Your task to perform on an android device: Clear the shopping cart on target.com. Add "razer blackwidow" to the cart on target.com Image 0: 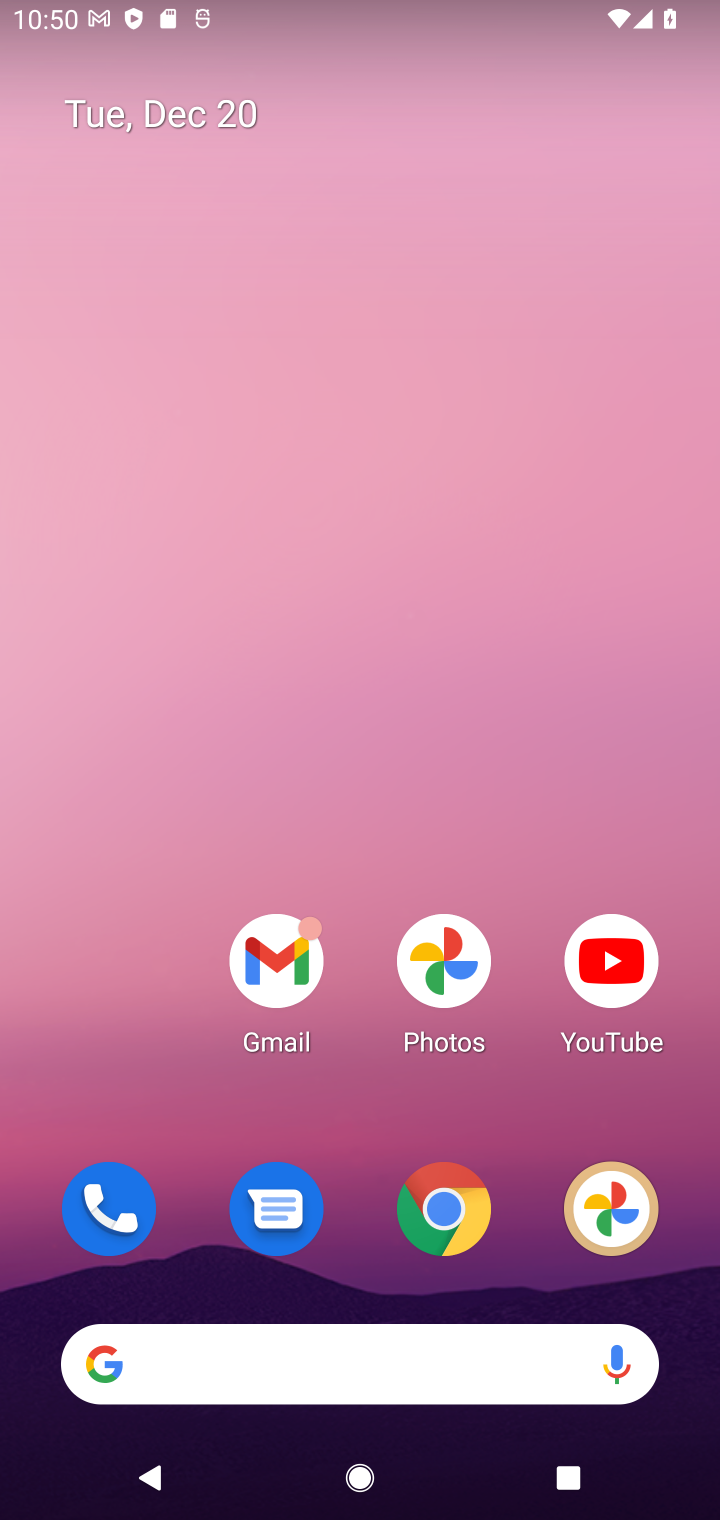
Step 0: click (447, 1223)
Your task to perform on an android device: Clear the shopping cart on target.com. Add "razer blackwidow" to the cart on target.com Image 1: 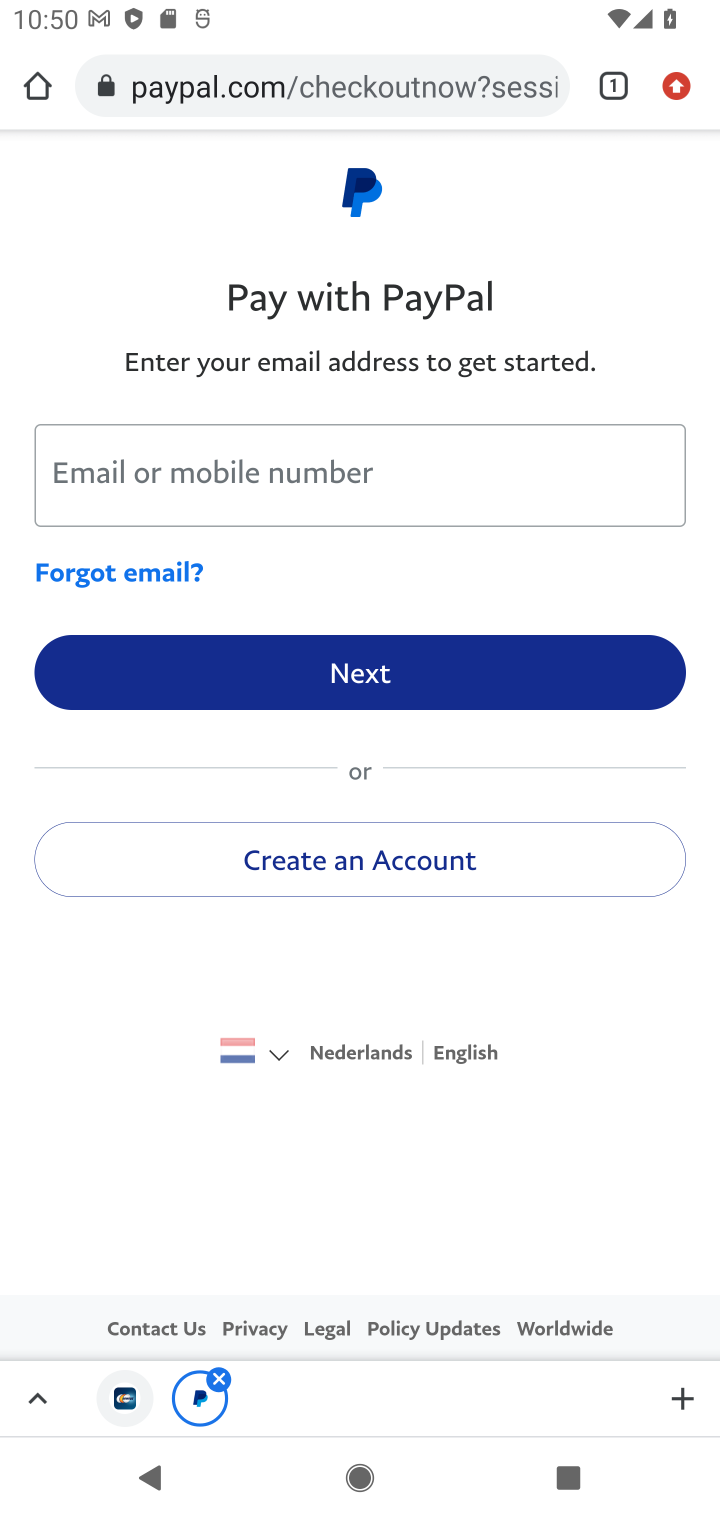
Step 1: click (232, 90)
Your task to perform on an android device: Clear the shopping cart on target.com. Add "razer blackwidow" to the cart on target.com Image 2: 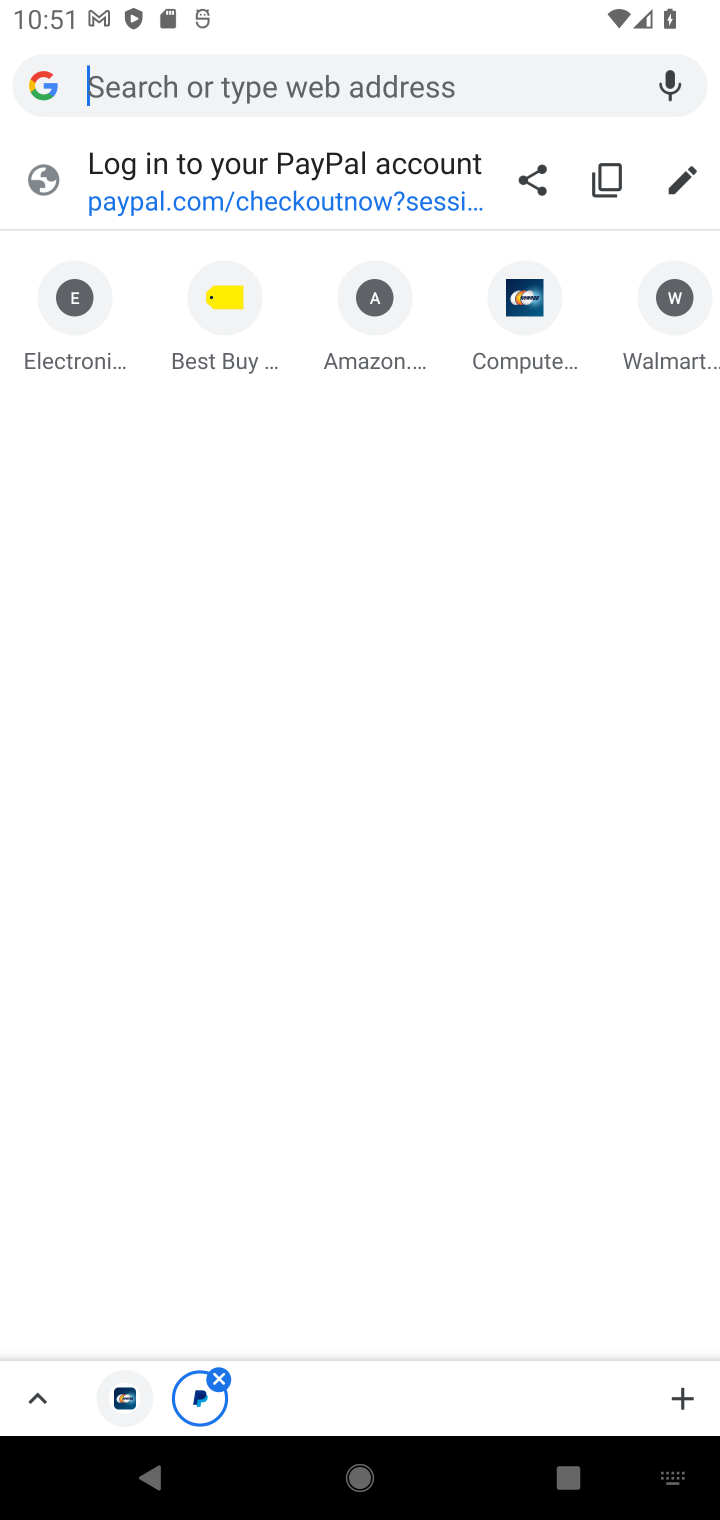
Step 2: type "target.com"
Your task to perform on an android device: Clear the shopping cart on target.com. Add "razer blackwidow" to the cart on target.com Image 3: 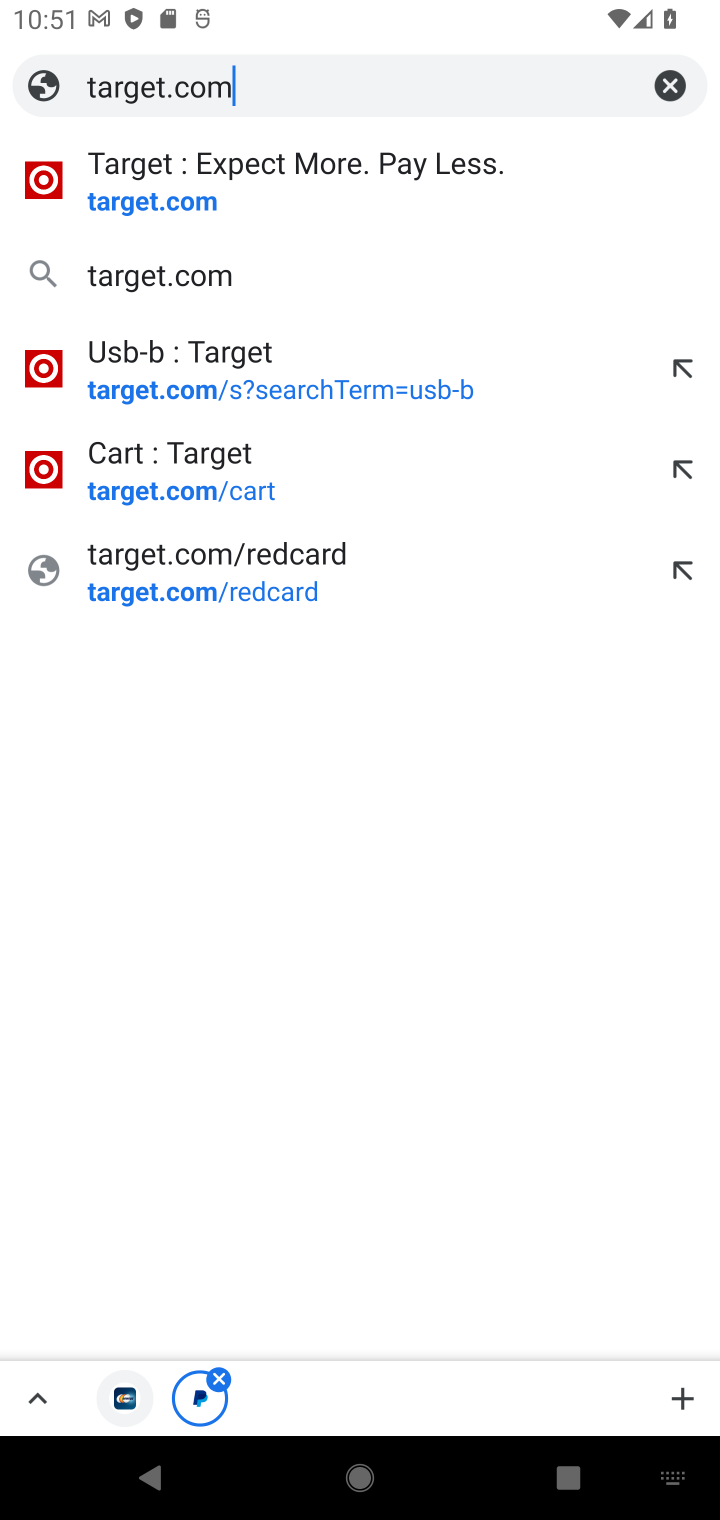
Step 3: click (153, 211)
Your task to perform on an android device: Clear the shopping cart on target.com. Add "razer blackwidow" to the cart on target.com Image 4: 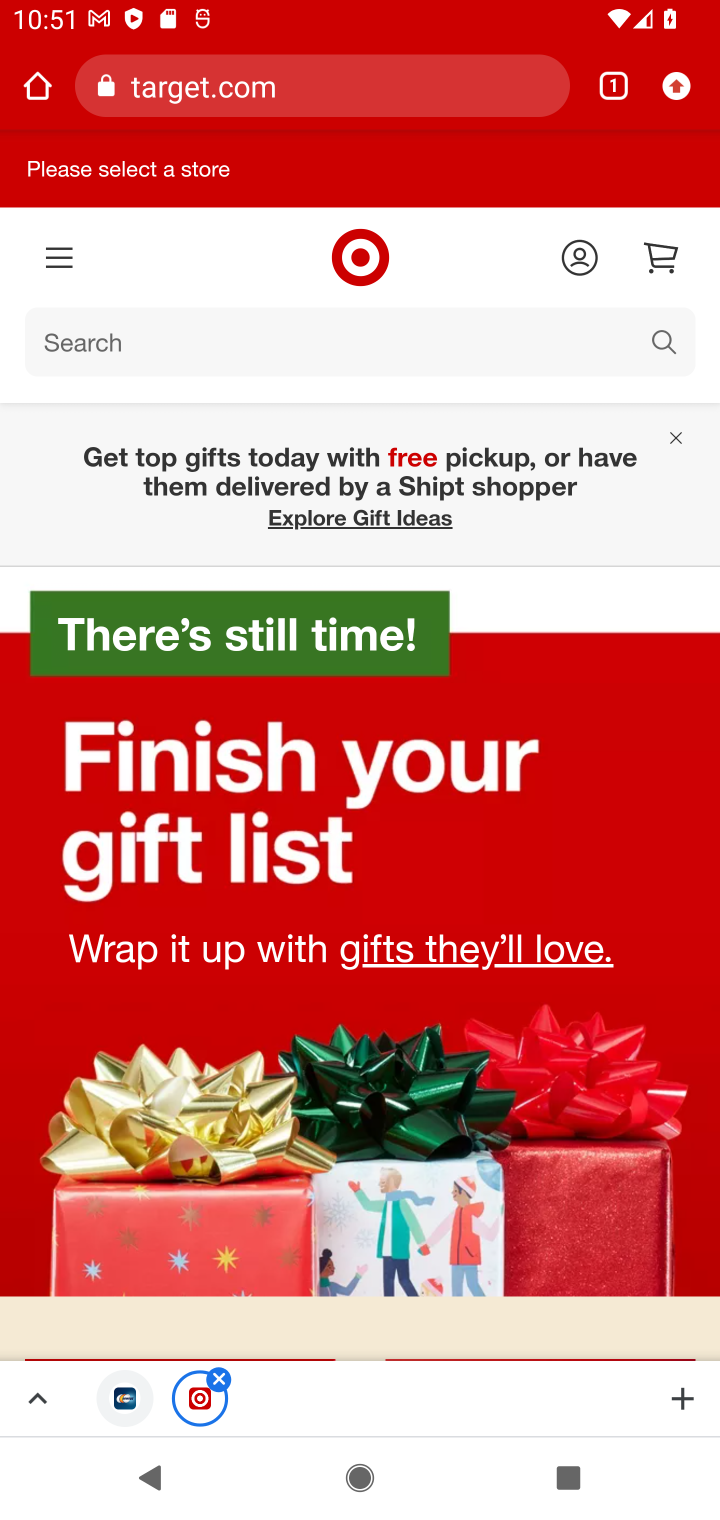
Step 4: click (656, 262)
Your task to perform on an android device: Clear the shopping cart on target.com. Add "razer blackwidow" to the cart on target.com Image 5: 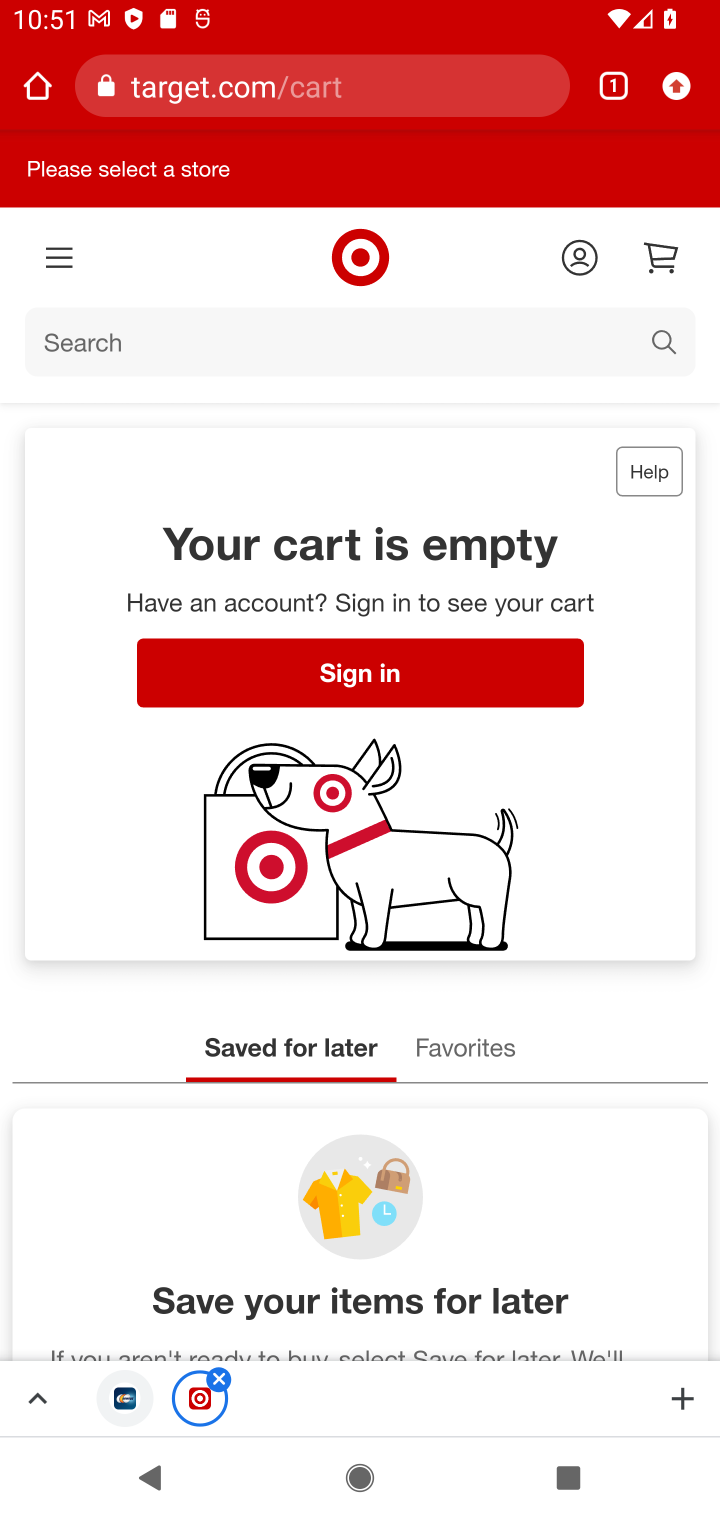
Step 5: click (100, 334)
Your task to perform on an android device: Clear the shopping cart on target.com. Add "razer blackwidow" to the cart on target.com Image 6: 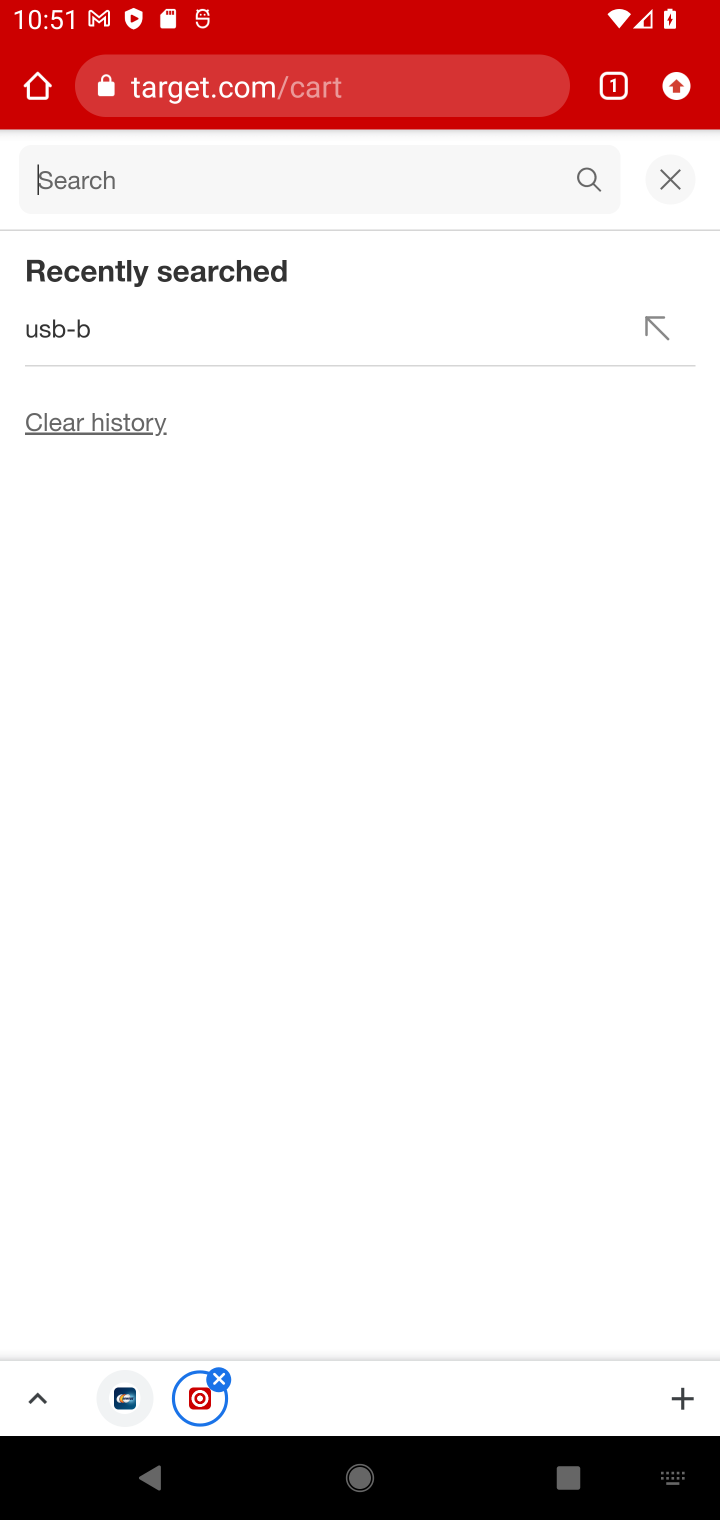
Step 6: type "razer blackwidow"
Your task to perform on an android device: Clear the shopping cart on target.com. Add "razer blackwidow" to the cart on target.com Image 7: 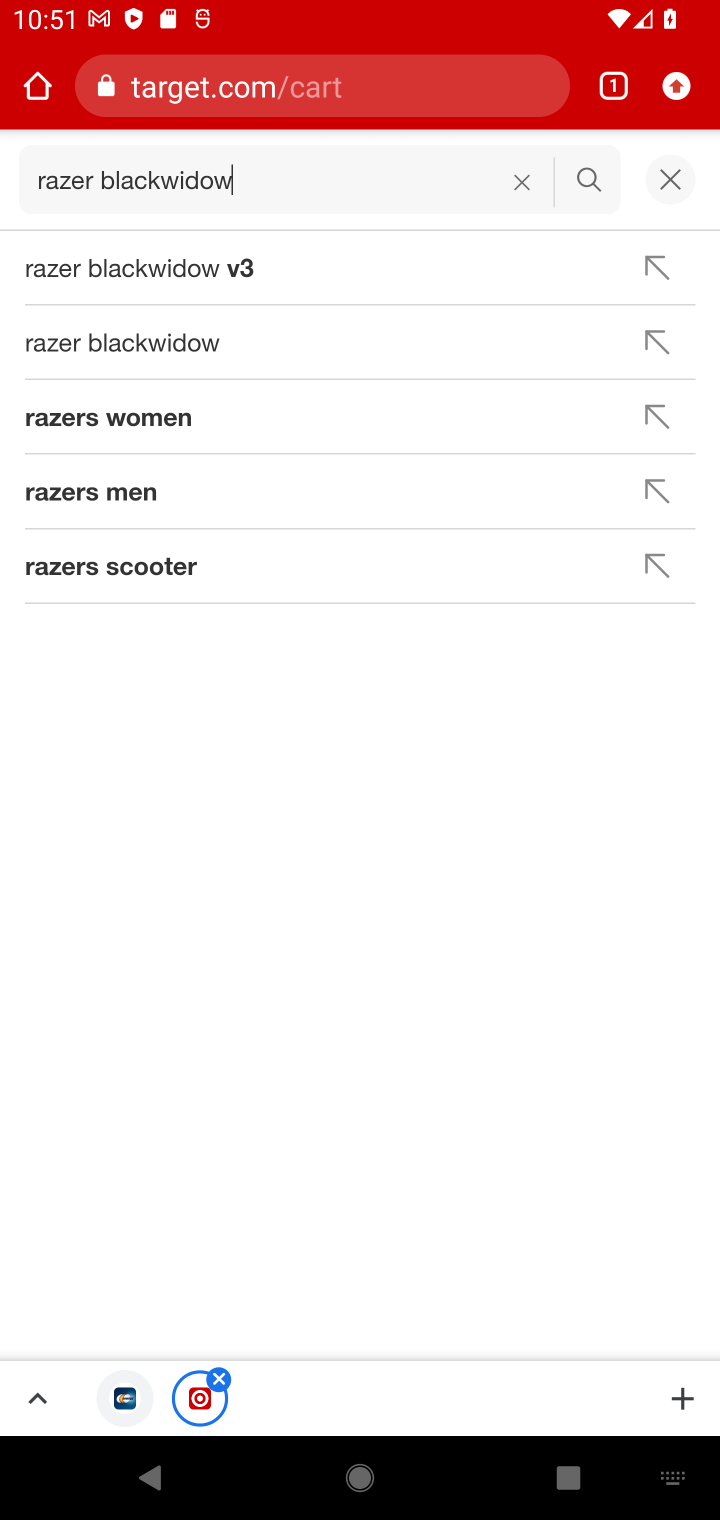
Step 7: click (126, 346)
Your task to perform on an android device: Clear the shopping cart on target.com. Add "razer blackwidow" to the cart on target.com Image 8: 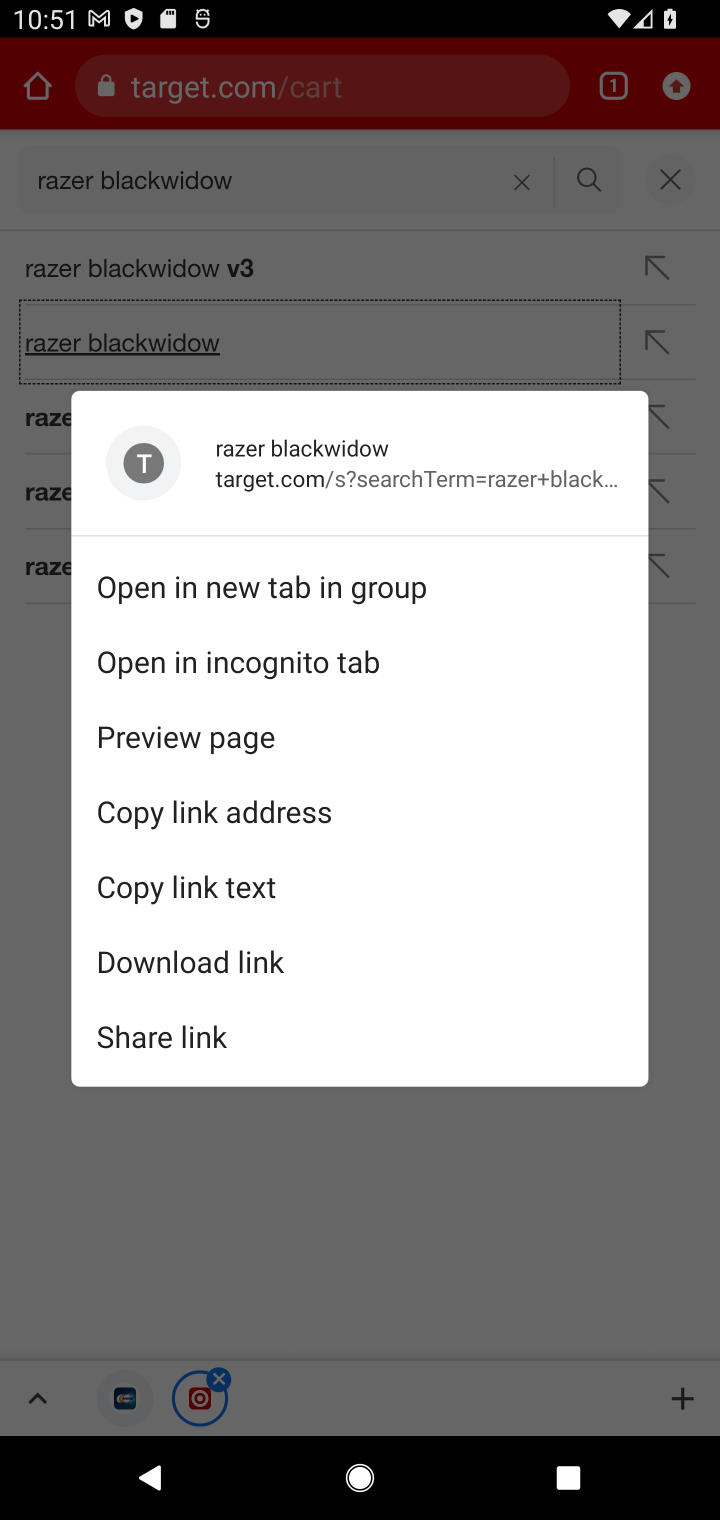
Step 8: click (126, 346)
Your task to perform on an android device: Clear the shopping cart on target.com. Add "razer blackwidow" to the cart on target.com Image 9: 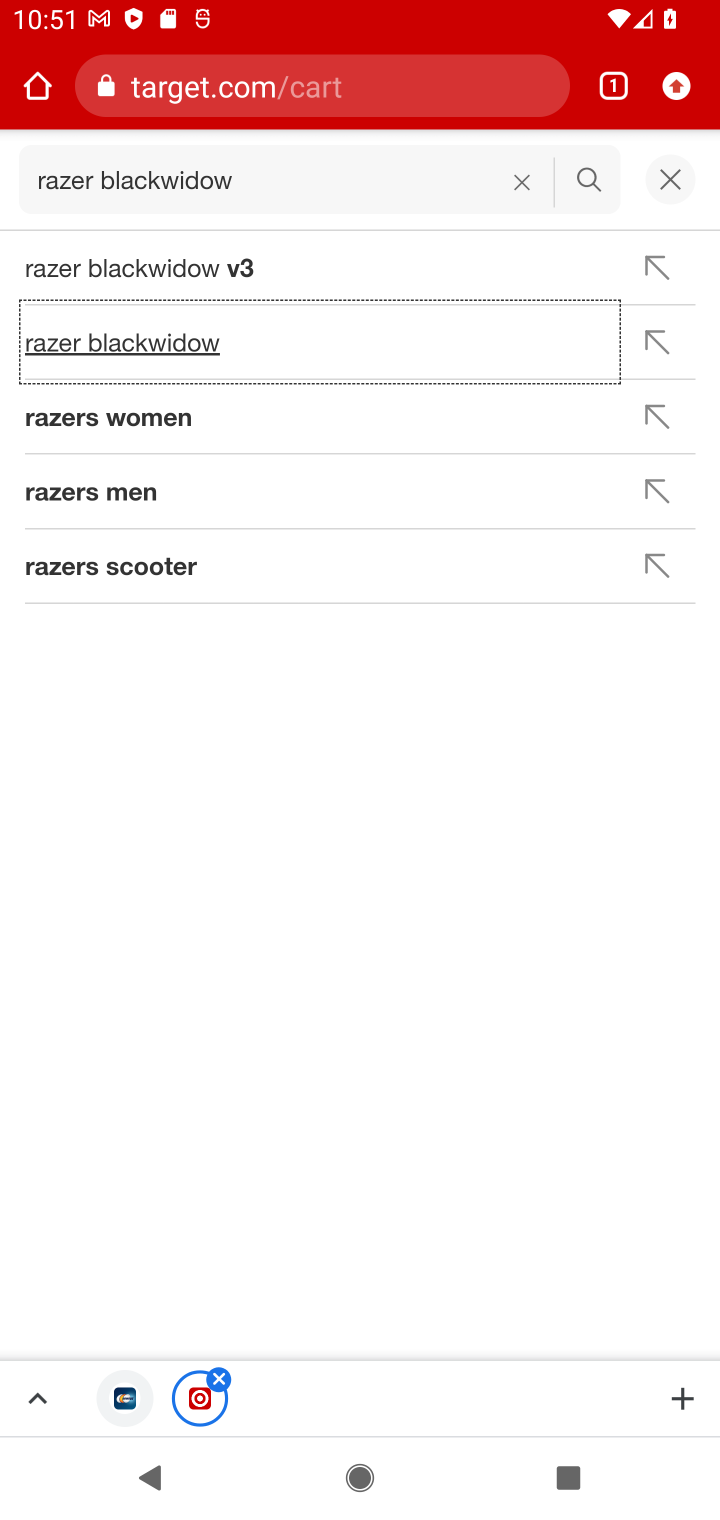
Step 9: click (126, 346)
Your task to perform on an android device: Clear the shopping cart on target.com. Add "razer blackwidow" to the cart on target.com Image 10: 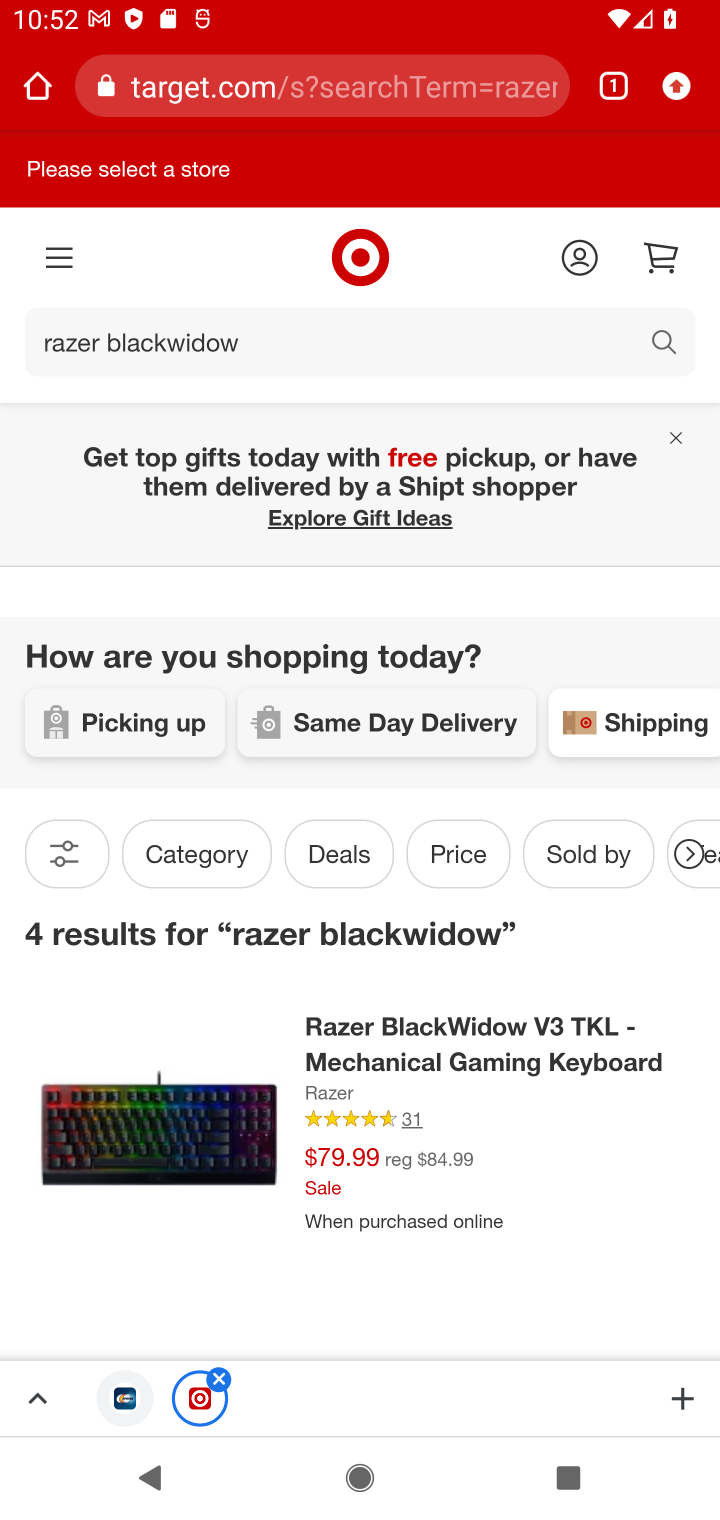
Step 10: drag from (329, 1195) to (347, 864)
Your task to perform on an android device: Clear the shopping cart on target.com. Add "razer blackwidow" to the cart on target.com Image 11: 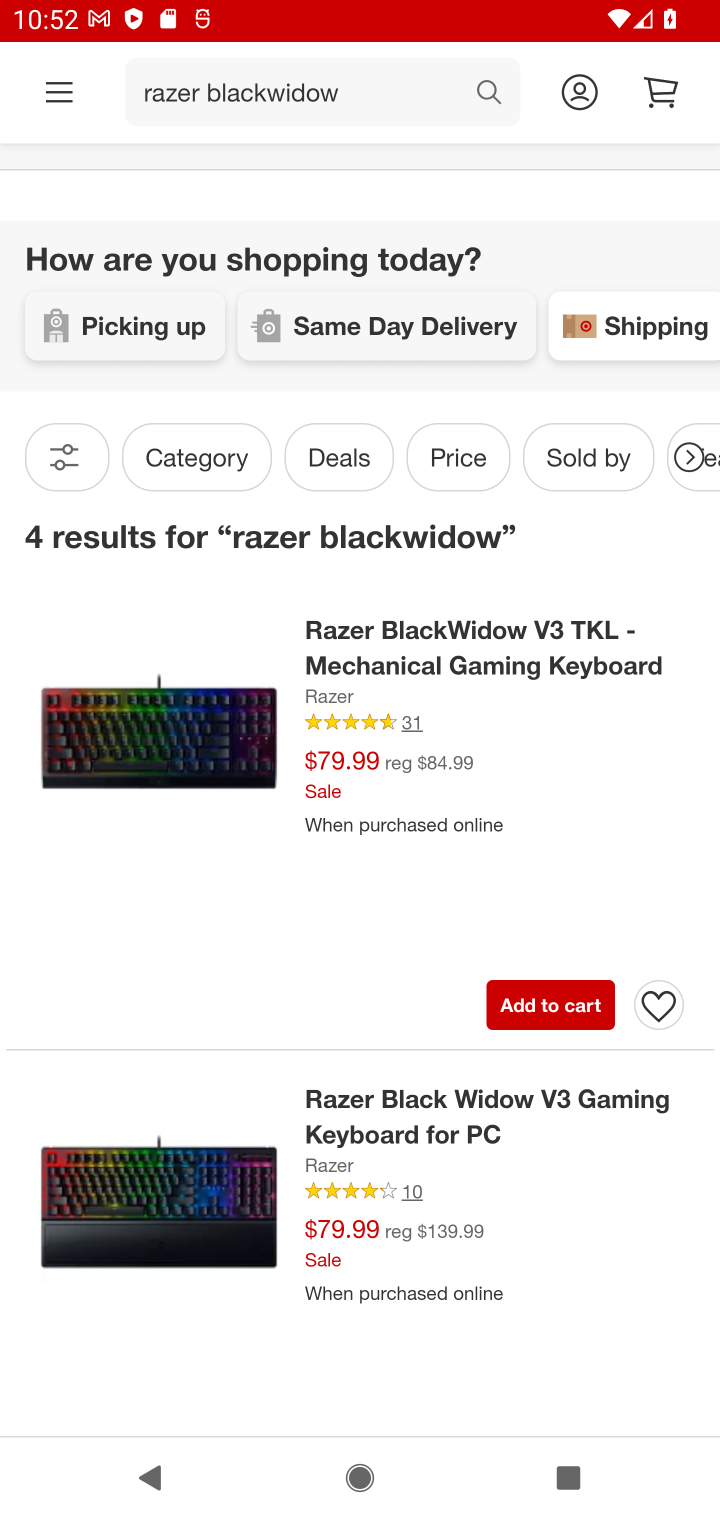
Step 11: click (543, 1008)
Your task to perform on an android device: Clear the shopping cart on target.com. Add "razer blackwidow" to the cart on target.com Image 12: 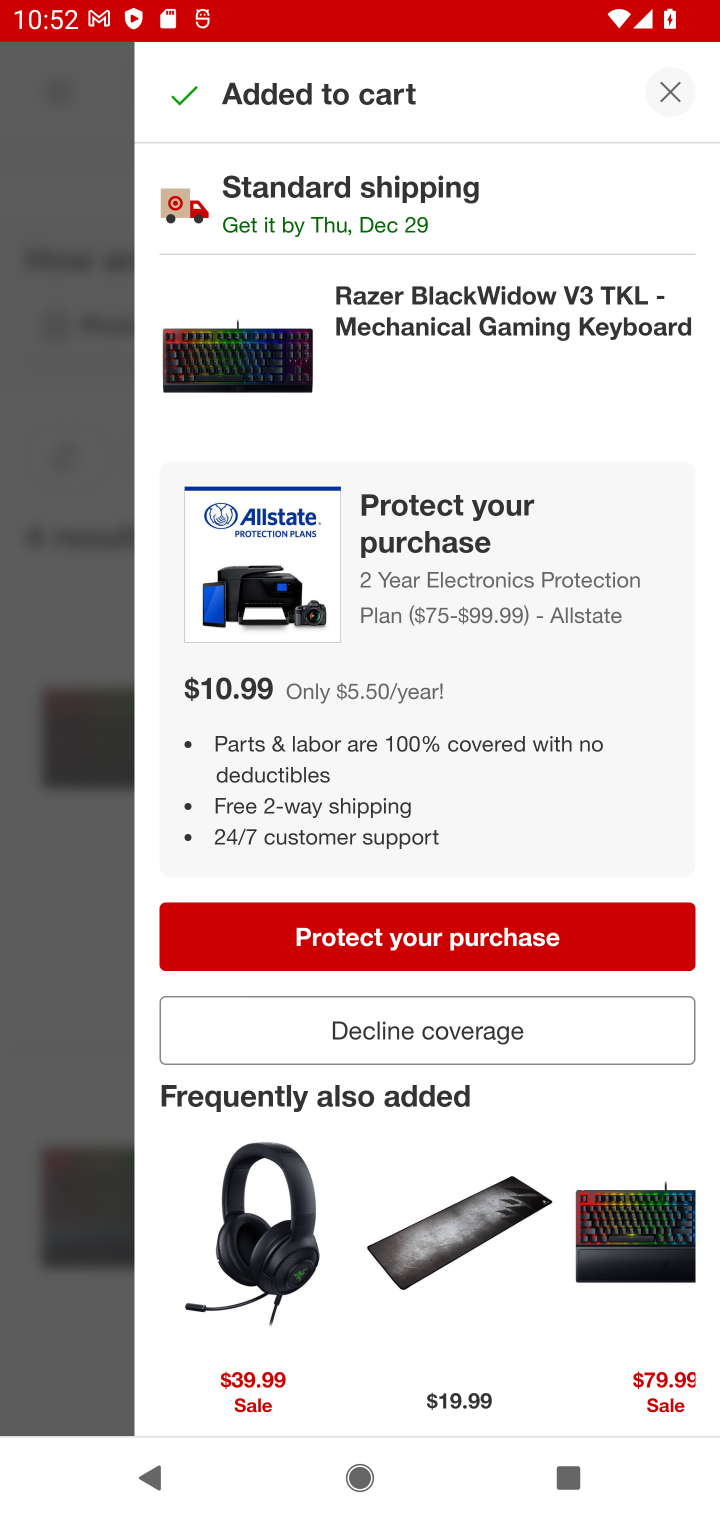
Step 12: task complete